Your task to perform on an android device: What's the weather going to be this weekend? Image 0: 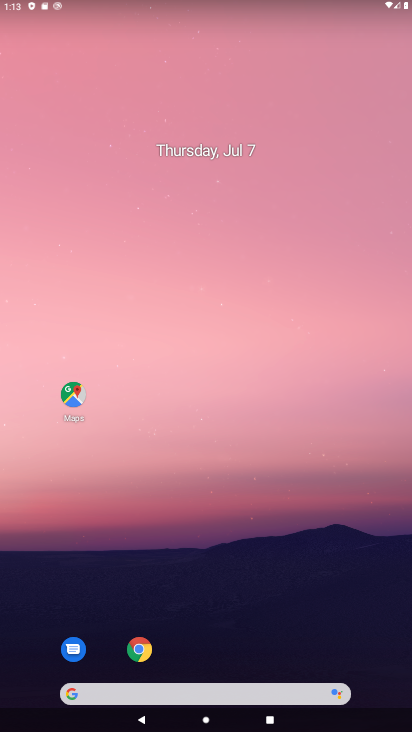
Step 0: drag from (383, 668) to (378, 102)
Your task to perform on an android device: What's the weather going to be this weekend? Image 1: 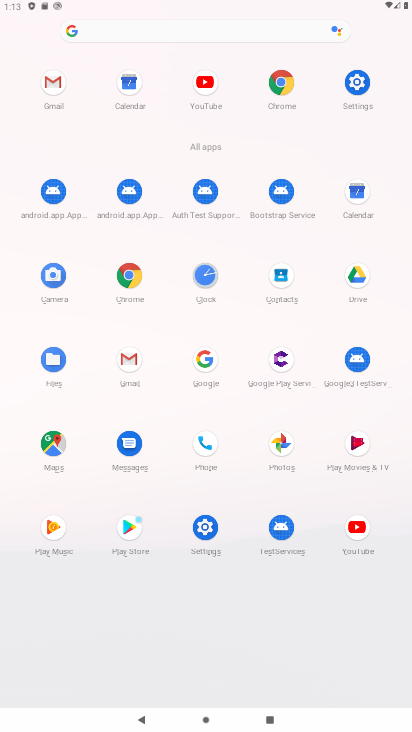
Step 1: click (122, 28)
Your task to perform on an android device: What's the weather going to be this weekend? Image 2: 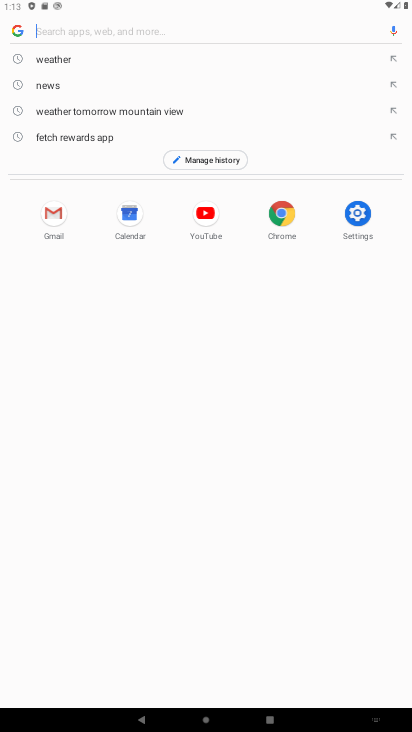
Step 2: click (50, 51)
Your task to perform on an android device: What's the weather going to be this weekend? Image 3: 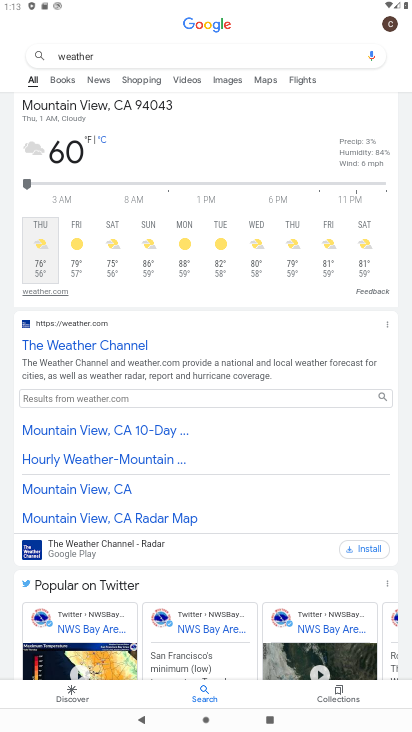
Step 3: click (86, 344)
Your task to perform on an android device: What's the weather going to be this weekend? Image 4: 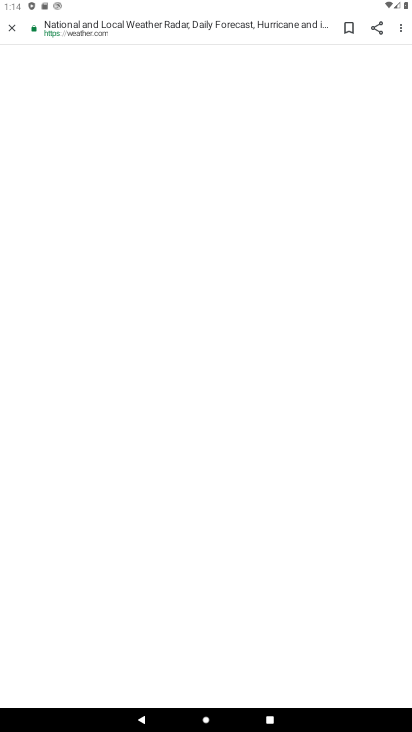
Step 4: press back button
Your task to perform on an android device: What's the weather going to be this weekend? Image 5: 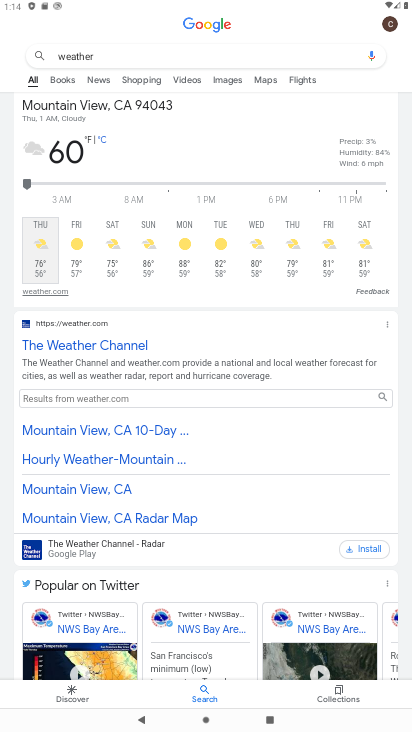
Step 5: press back button
Your task to perform on an android device: What's the weather going to be this weekend? Image 6: 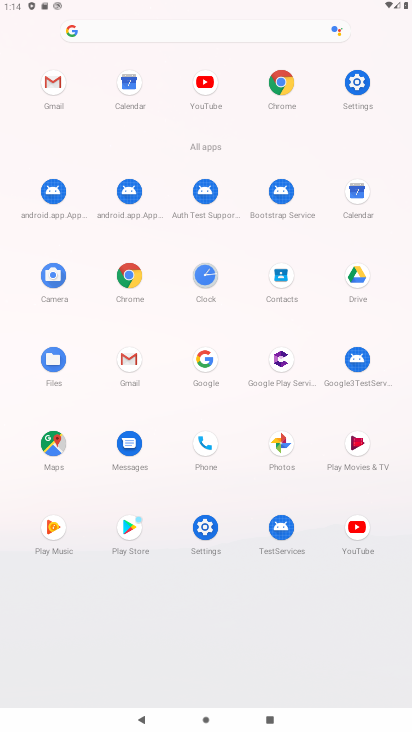
Step 6: press home button
Your task to perform on an android device: What's the weather going to be this weekend? Image 7: 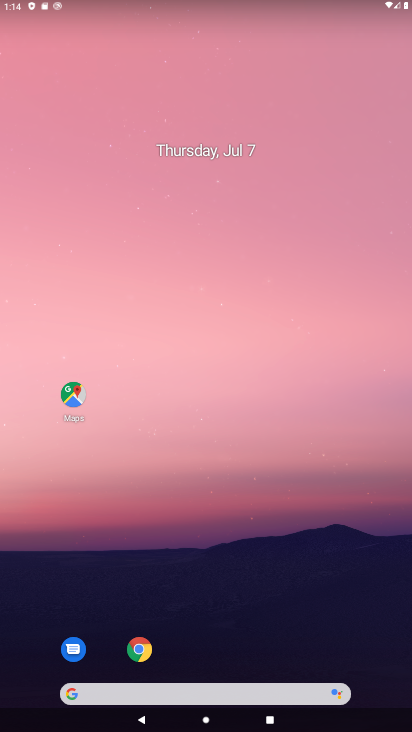
Step 7: drag from (9, 275) to (410, 250)
Your task to perform on an android device: What's the weather going to be this weekend? Image 8: 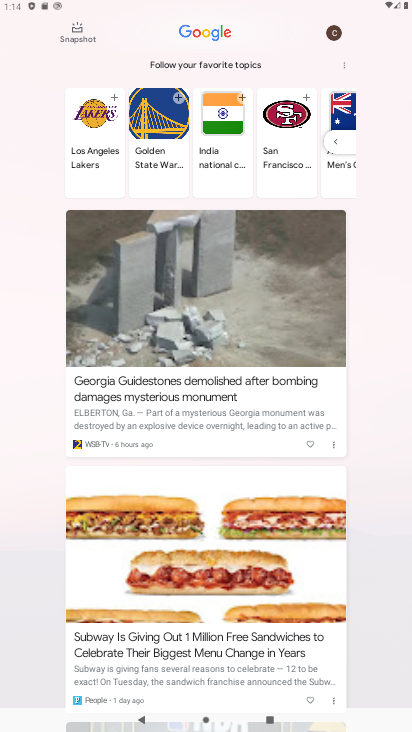
Step 8: drag from (230, 202) to (226, 483)
Your task to perform on an android device: What's the weather going to be this weekend? Image 9: 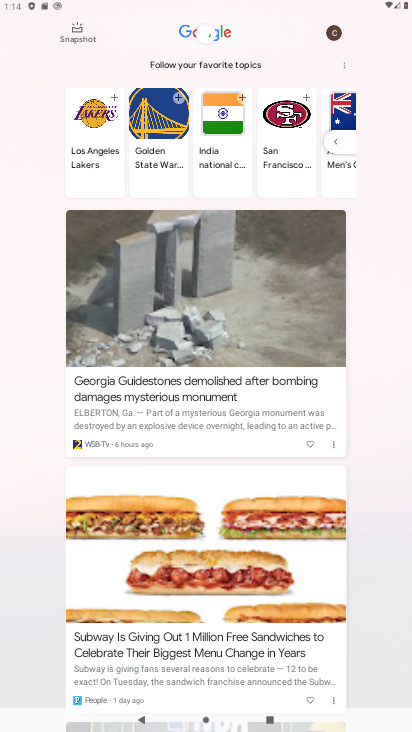
Step 9: drag from (395, 478) to (3, 269)
Your task to perform on an android device: What's the weather going to be this weekend? Image 10: 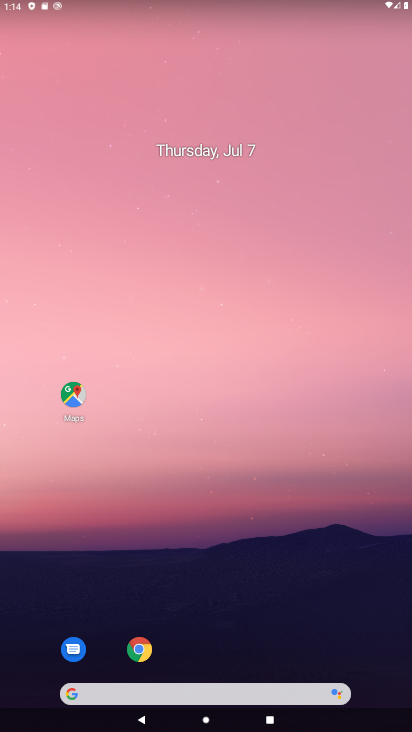
Step 10: click (165, 694)
Your task to perform on an android device: What's the weather going to be this weekend? Image 11: 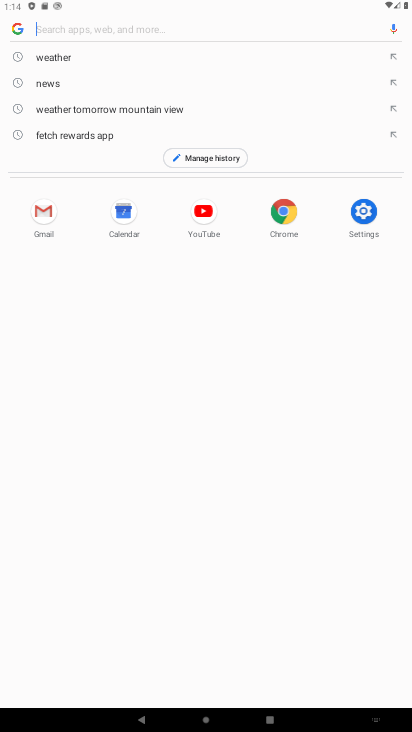
Step 11: click (41, 51)
Your task to perform on an android device: What's the weather going to be this weekend? Image 12: 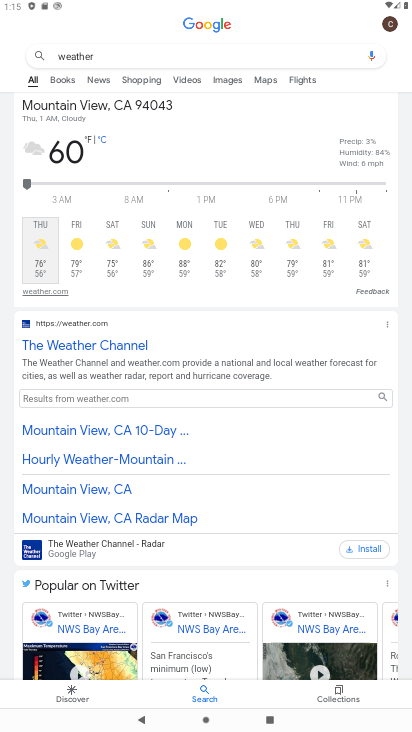
Step 12: task complete